Your task to perform on an android device: clear all cookies in the chrome app Image 0: 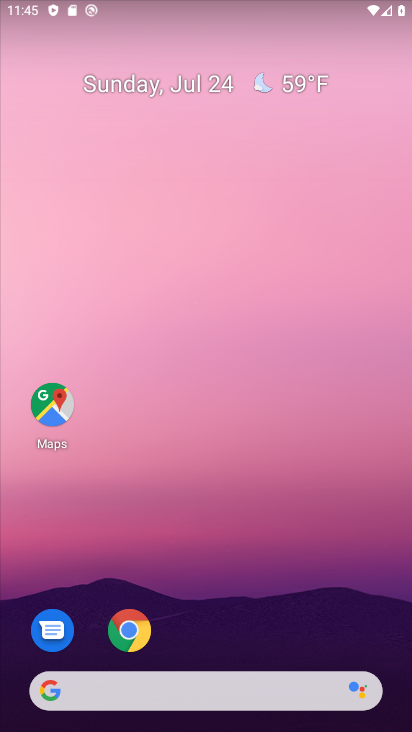
Step 0: click (111, 636)
Your task to perform on an android device: clear all cookies in the chrome app Image 1: 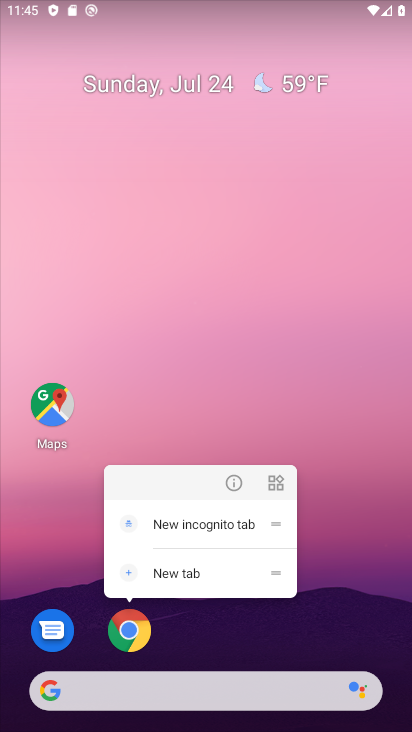
Step 1: click (111, 636)
Your task to perform on an android device: clear all cookies in the chrome app Image 2: 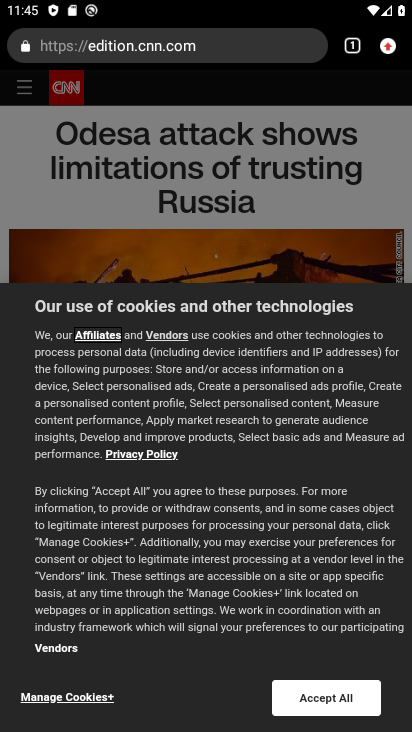
Step 2: click (396, 47)
Your task to perform on an android device: clear all cookies in the chrome app Image 3: 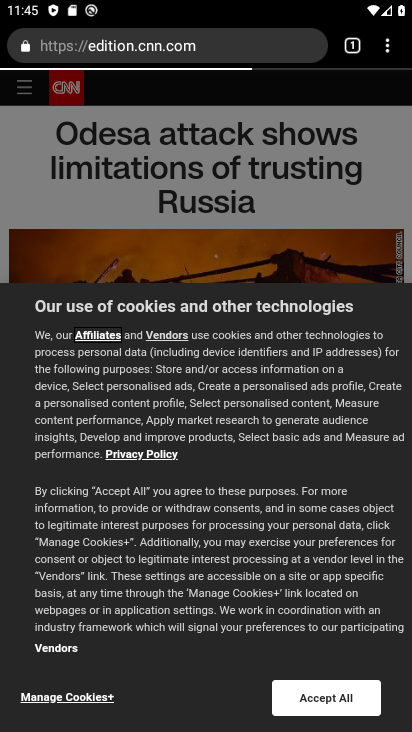
Step 3: click (383, 47)
Your task to perform on an android device: clear all cookies in the chrome app Image 4: 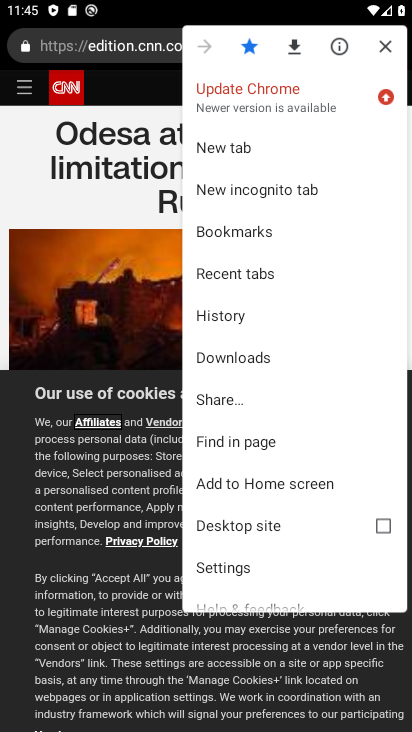
Step 4: click (245, 311)
Your task to perform on an android device: clear all cookies in the chrome app Image 5: 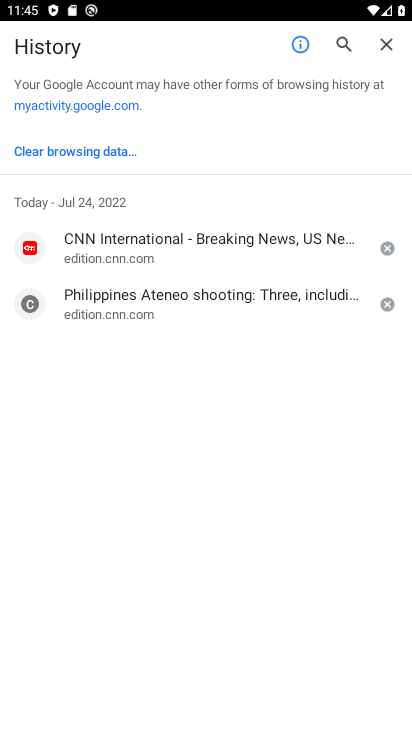
Step 5: click (78, 152)
Your task to perform on an android device: clear all cookies in the chrome app Image 6: 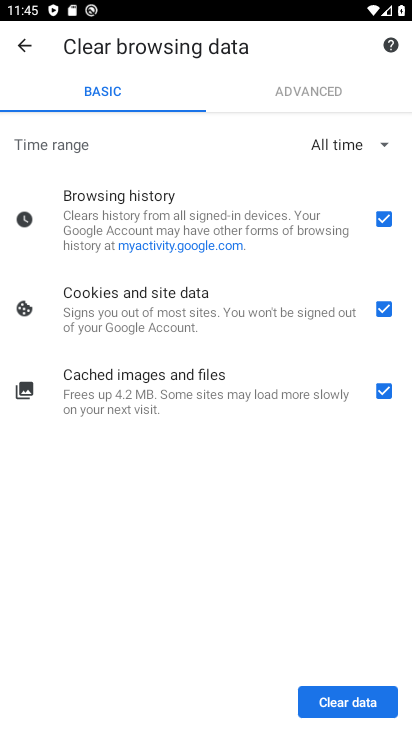
Step 6: click (335, 708)
Your task to perform on an android device: clear all cookies in the chrome app Image 7: 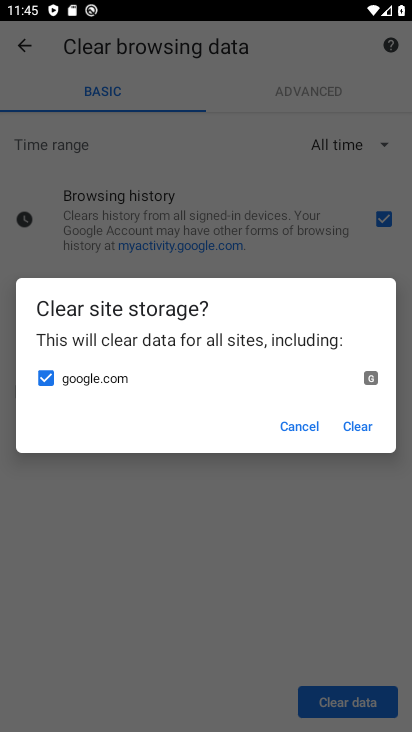
Step 7: click (368, 429)
Your task to perform on an android device: clear all cookies in the chrome app Image 8: 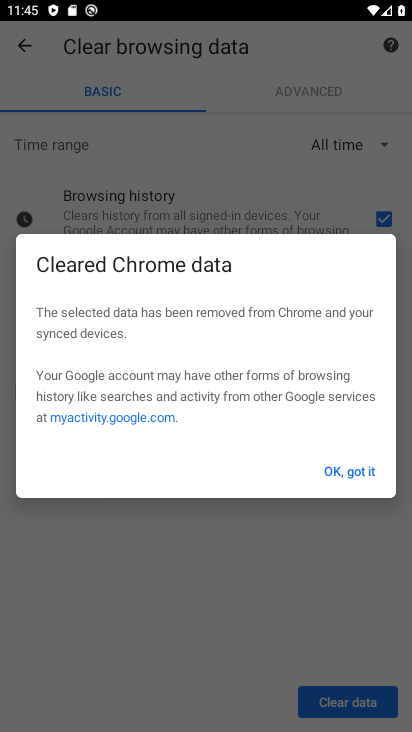
Step 8: click (347, 465)
Your task to perform on an android device: clear all cookies in the chrome app Image 9: 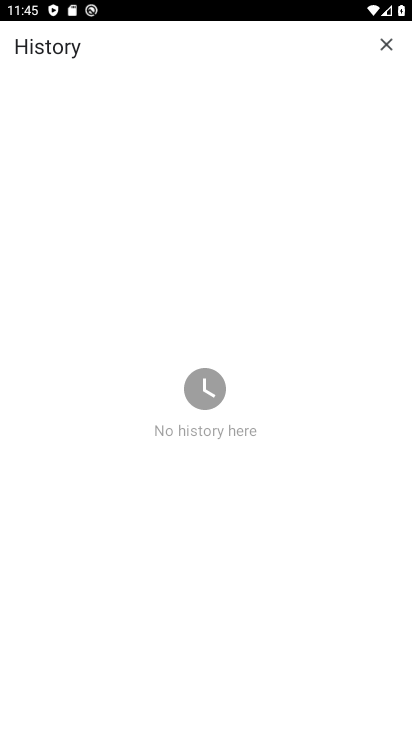
Step 9: task complete